Your task to perform on an android device: What's on my calendar today? Image 0: 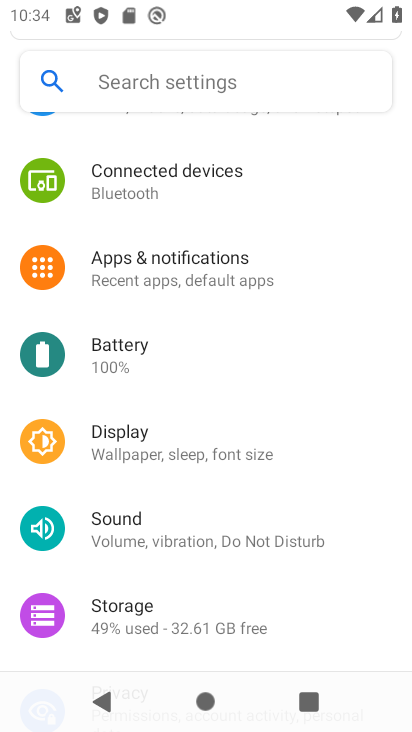
Step 0: press home button
Your task to perform on an android device: What's on my calendar today? Image 1: 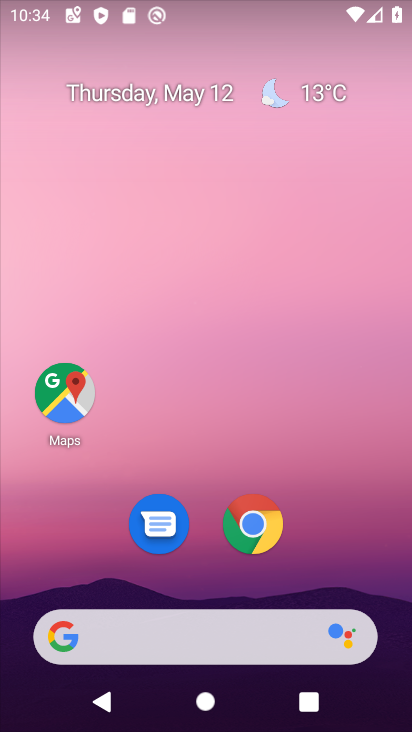
Step 1: drag from (204, 547) to (210, 71)
Your task to perform on an android device: What's on my calendar today? Image 2: 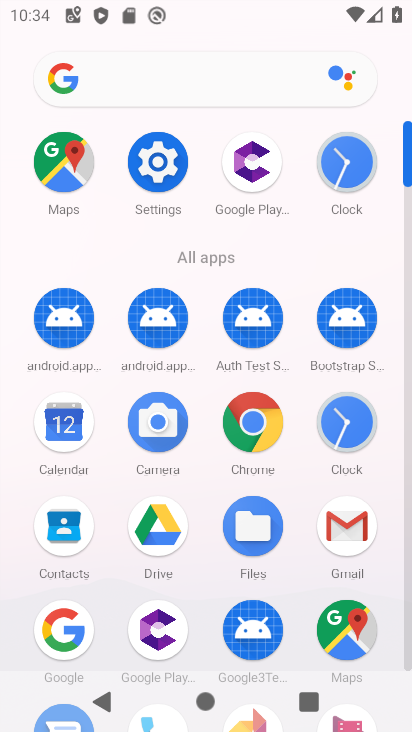
Step 2: click (70, 417)
Your task to perform on an android device: What's on my calendar today? Image 3: 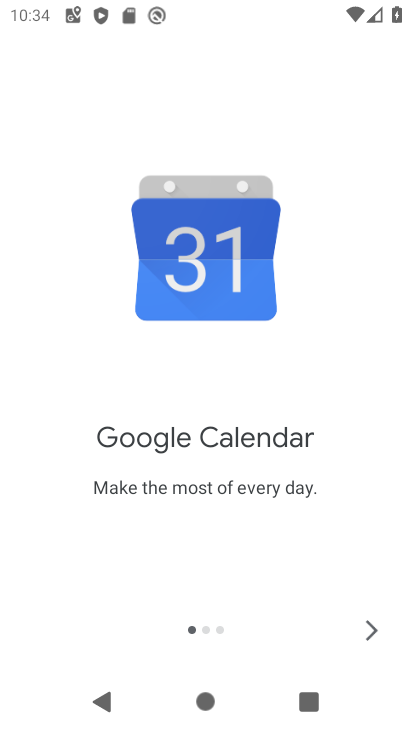
Step 3: click (376, 630)
Your task to perform on an android device: What's on my calendar today? Image 4: 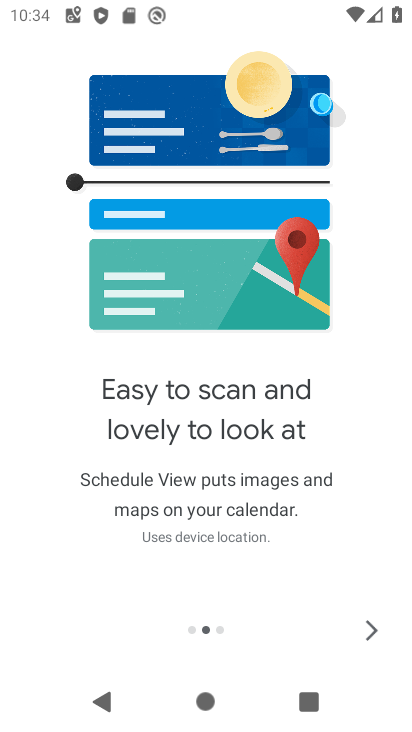
Step 4: click (376, 630)
Your task to perform on an android device: What's on my calendar today? Image 5: 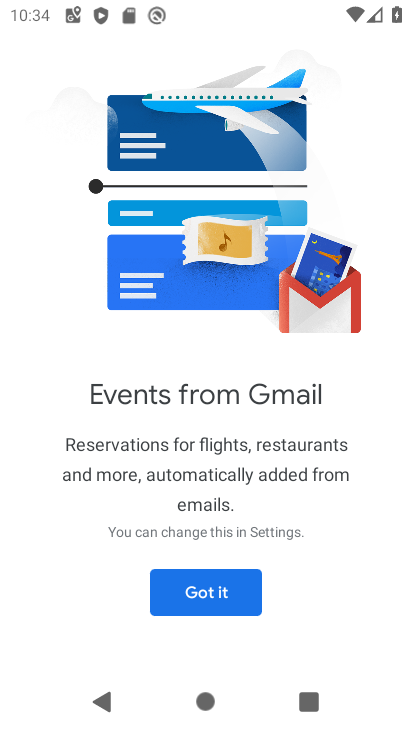
Step 5: click (256, 586)
Your task to perform on an android device: What's on my calendar today? Image 6: 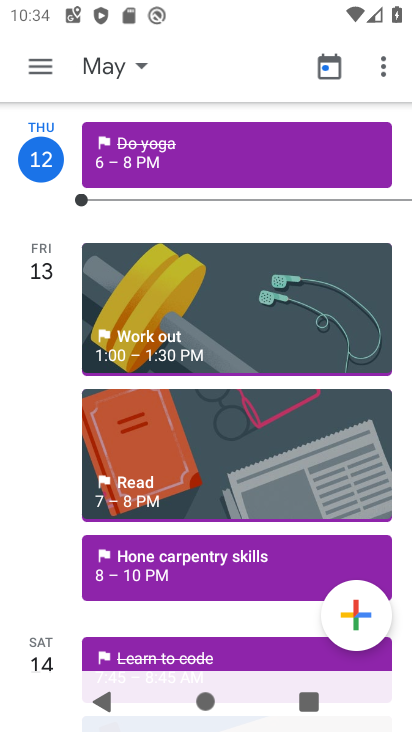
Step 6: task complete